Your task to perform on an android device: Show me recent news Image 0: 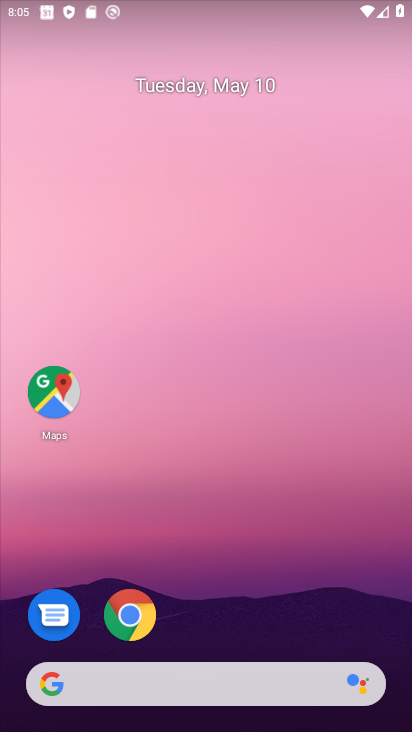
Step 0: drag from (179, 642) to (324, 119)
Your task to perform on an android device: Show me recent news Image 1: 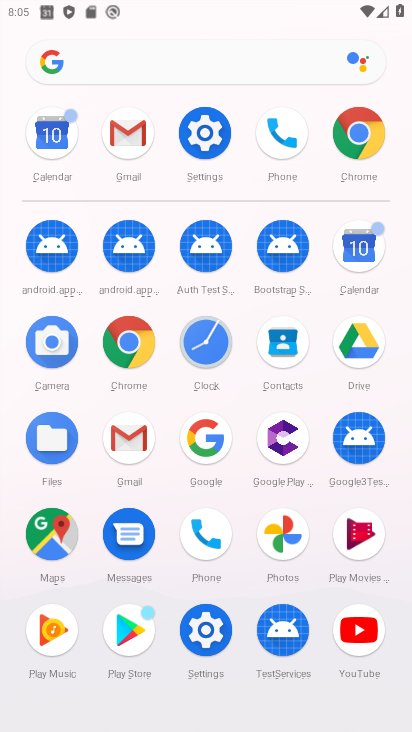
Step 1: click (225, 66)
Your task to perform on an android device: Show me recent news Image 2: 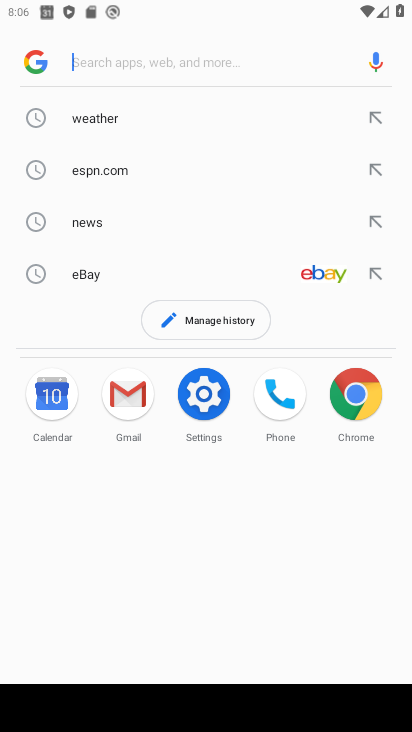
Step 2: type "recent news"
Your task to perform on an android device: Show me recent news Image 3: 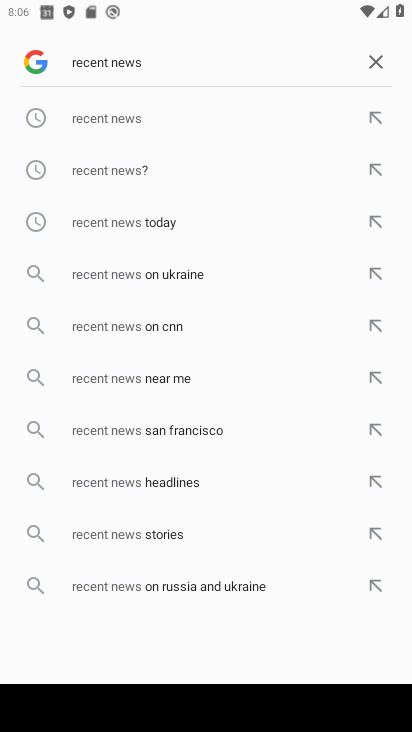
Step 3: click (147, 106)
Your task to perform on an android device: Show me recent news Image 4: 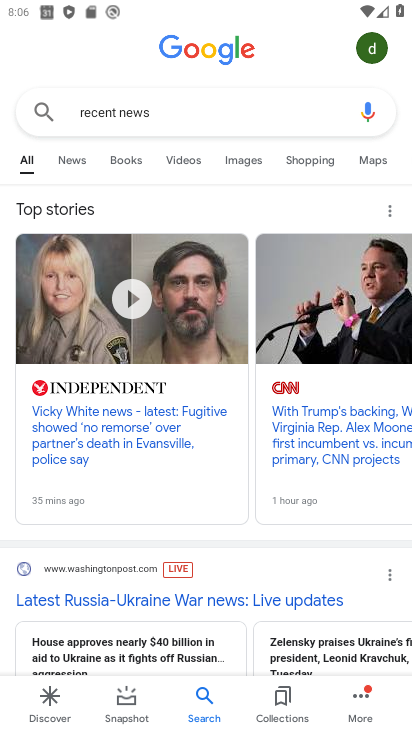
Step 4: task complete